Your task to perform on an android device: Open Youtube and go to "Your channel" Image 0: 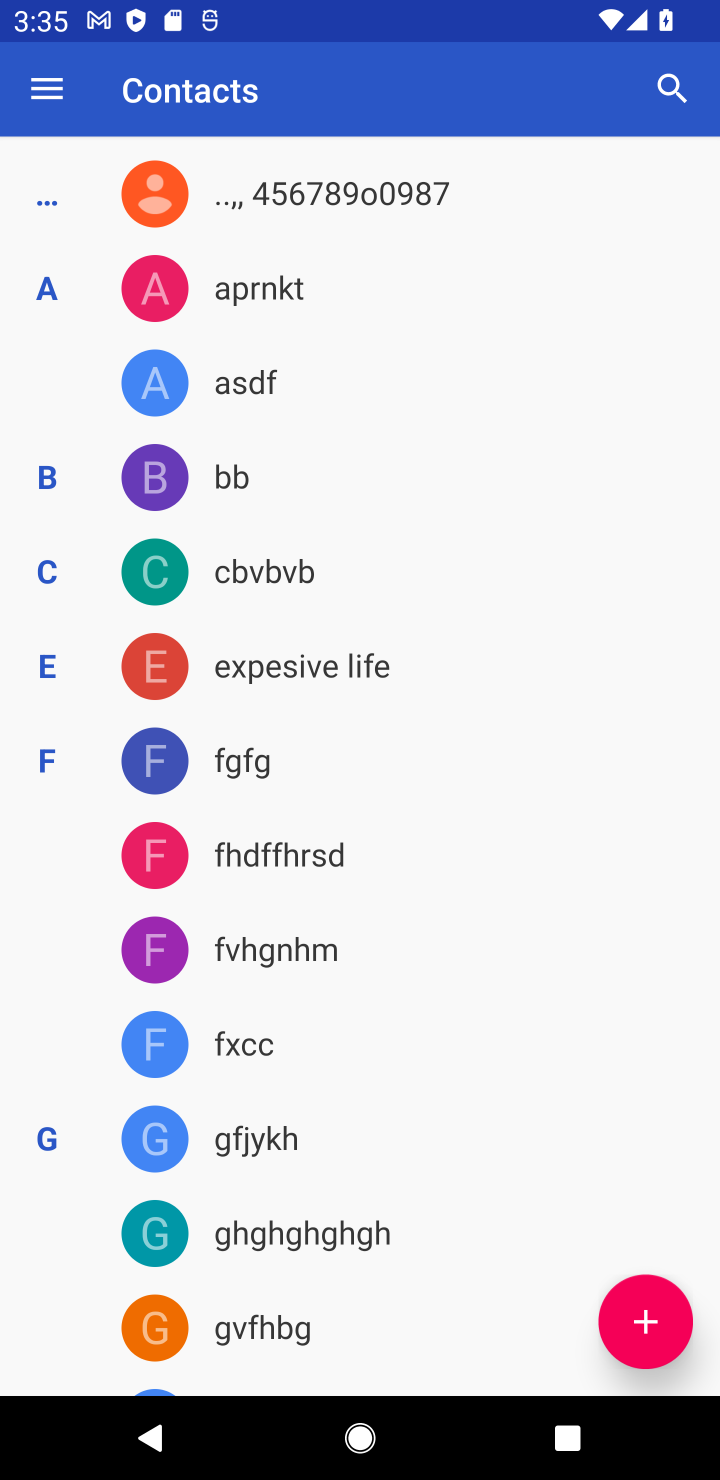
Step 0: press home button
Your task to perform on an android device: Open Youtube and go to "Your channel" Image 1: 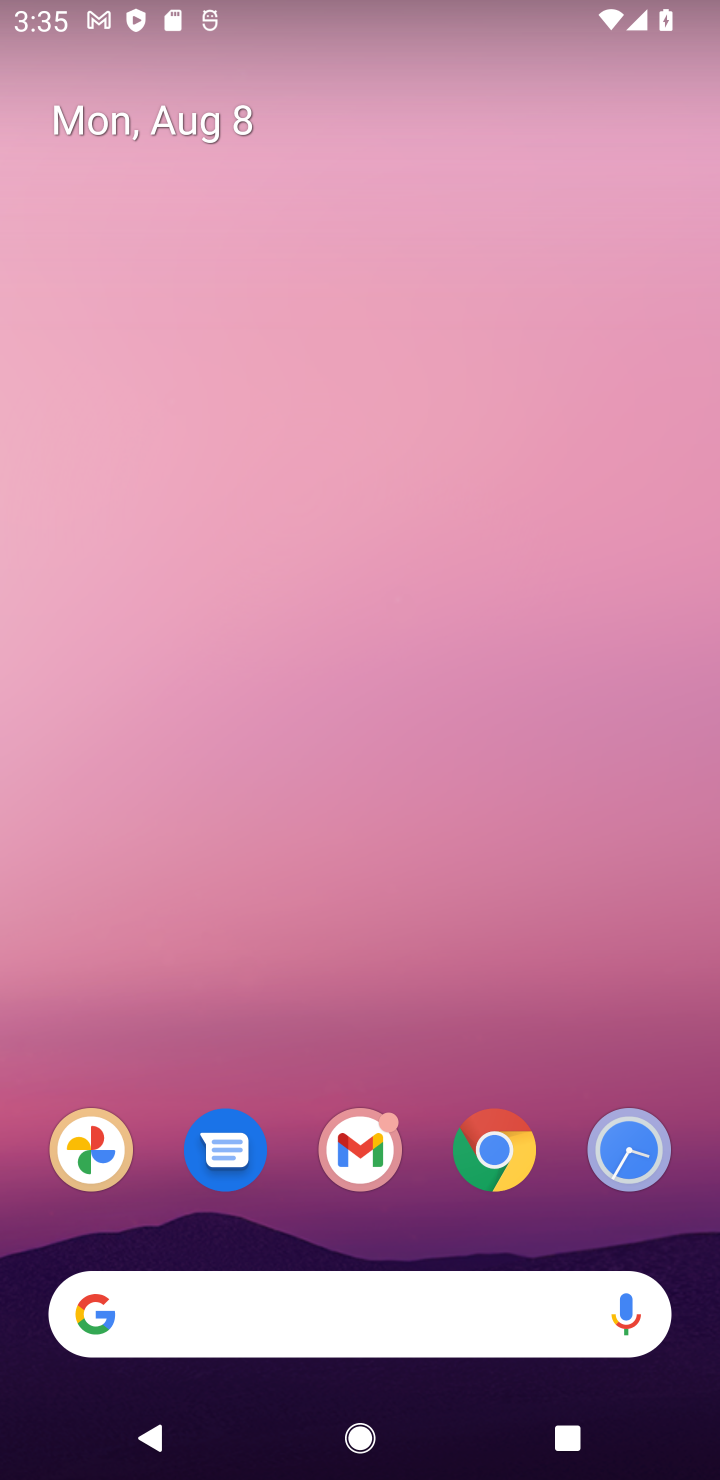
Step 1: drag from (431, 1262) to (274, 150)
Your task to perform on an android device: Open Youtube and go to "Your channel" Image 2: 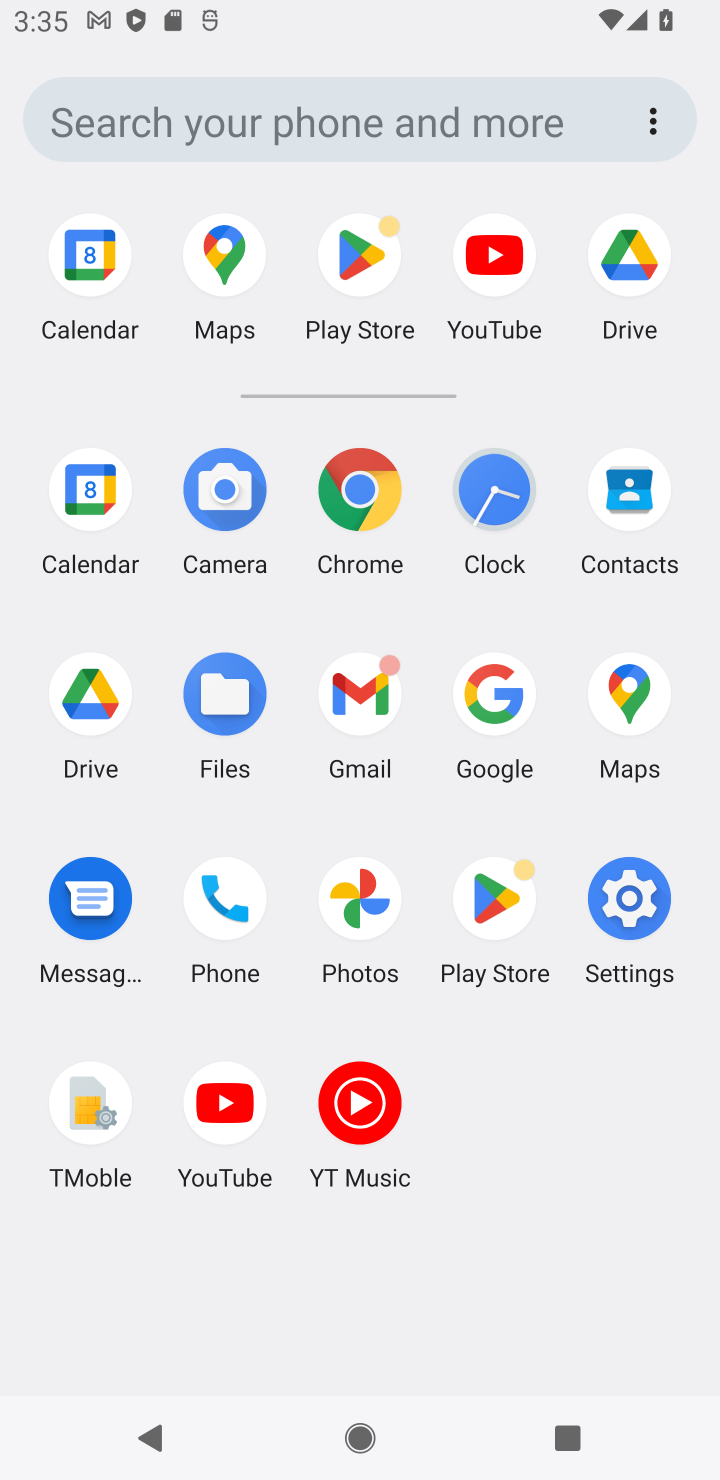
Step 2: click (480, 310)
Your task to perform on an android device: Open Youtube and go to "Your channel" Image 3: 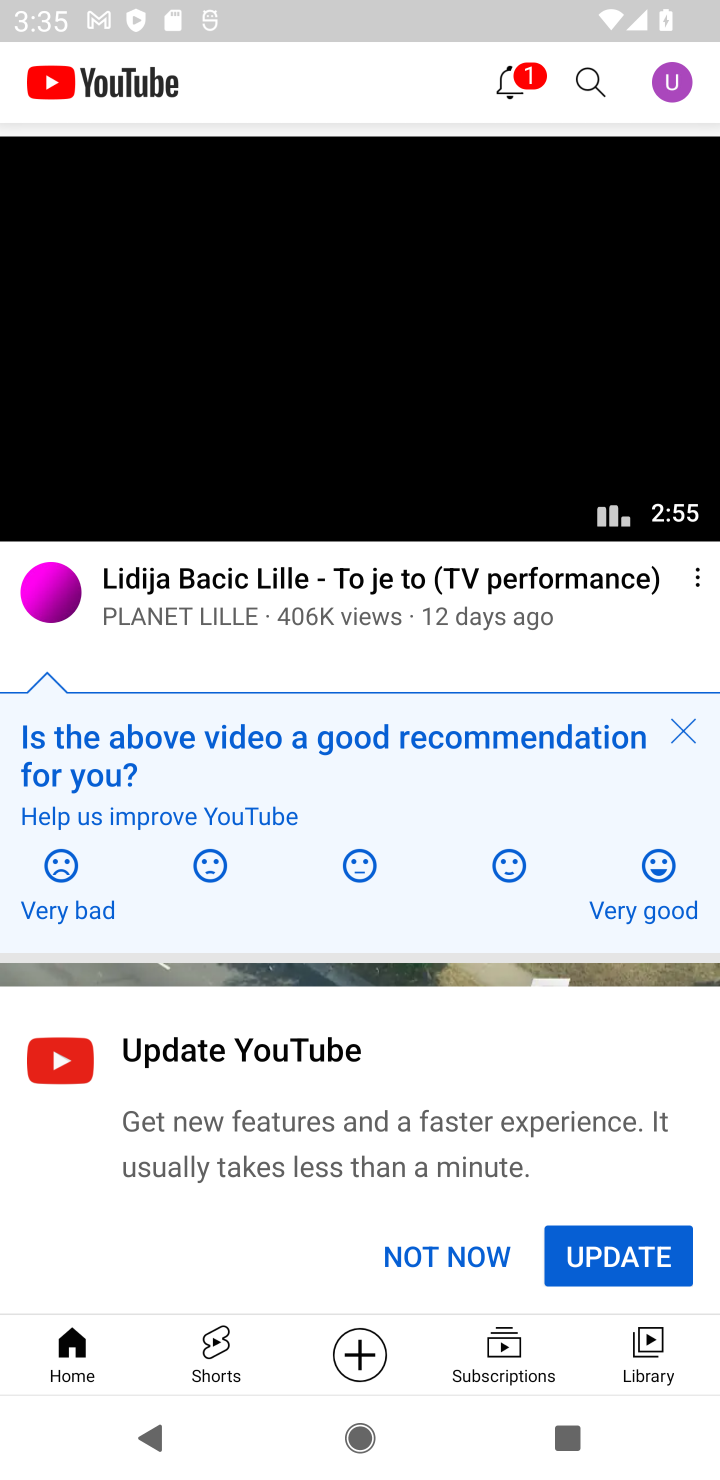
Step 3: click (660, 85)
Your task to perform on an android device: Open Youtube and go to "Your channel" Image 4: 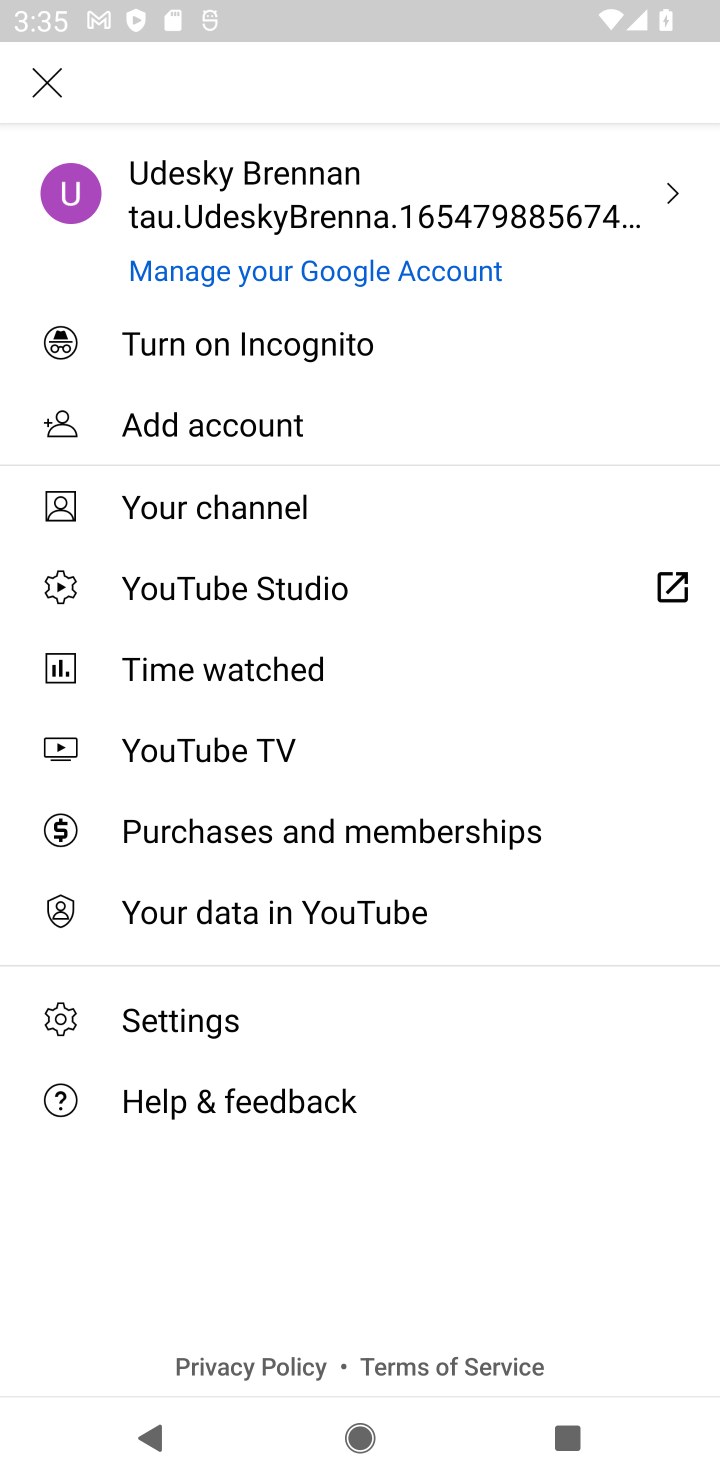
Step 4: click (156, 508)
Your task to perform on an android device: Open Youtube and go to "Your channel" Image 5: 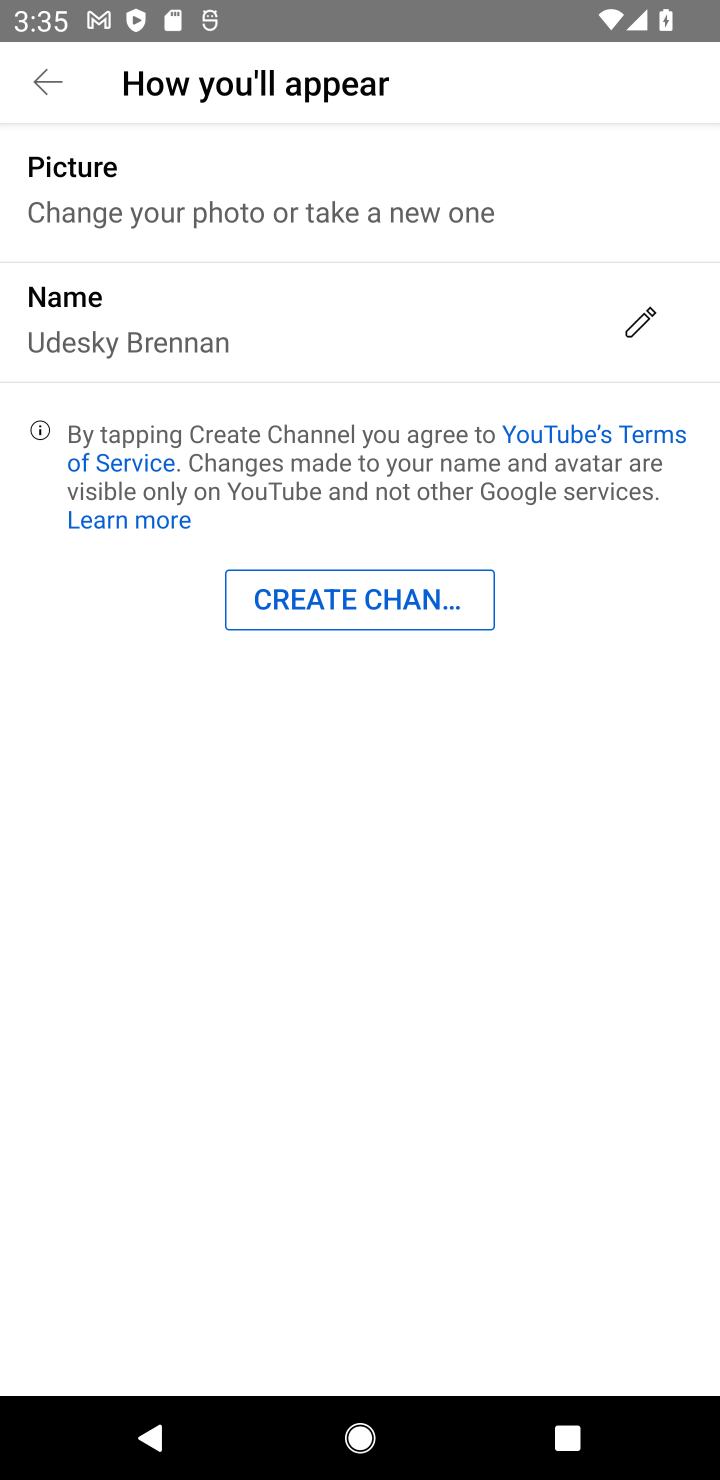
Step 5: task complete